Your task to perform on an android device: turn off translation in the chrome app Image 0: 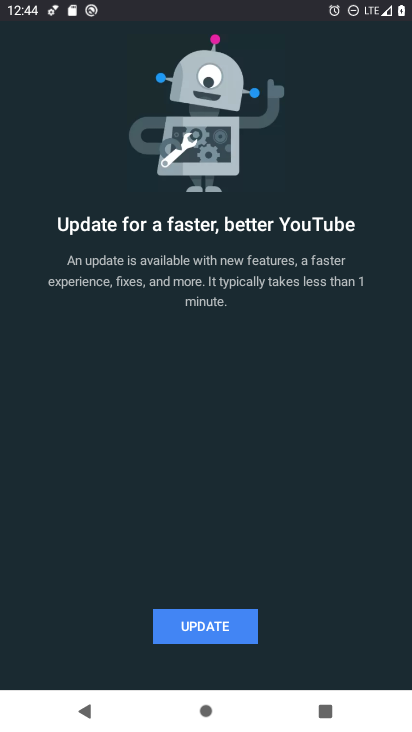
Step 0: press home button
Your task to perform on an android device: turn off translation in the chrome app Image 1: 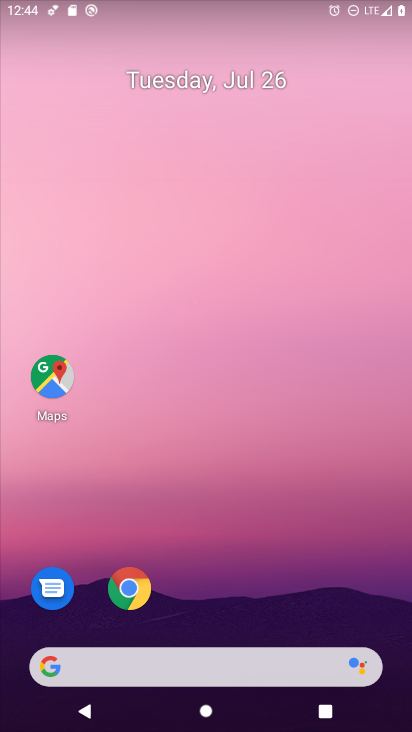
Step 1: drag from (226, 623) to (170, 158)
Your task to perform on an android device: turn off translation in the chrome app Image 2: 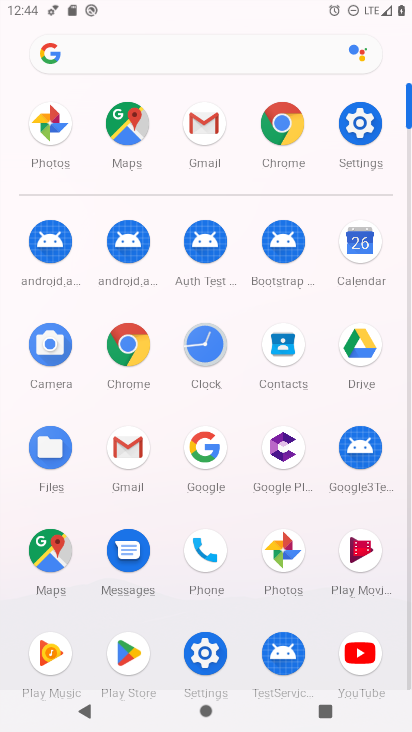
Step 2: click (290, 128)
Your task to perform on an android device: turn off translation in the chrome app Image 3: 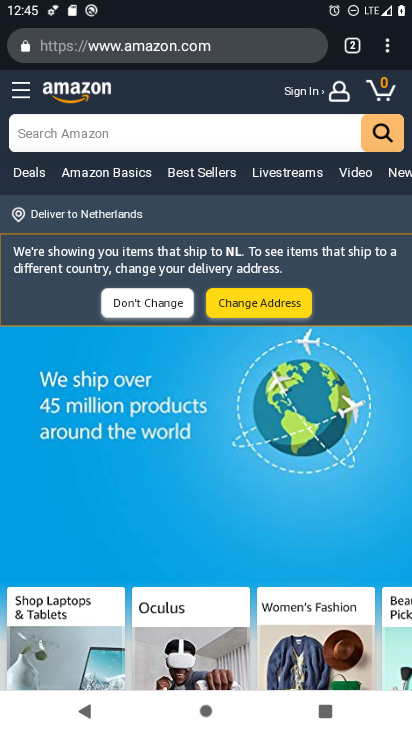
Step 3: click (391, 48)
Your task to perform on an android device: turn off translation in the chrome app Image 4: 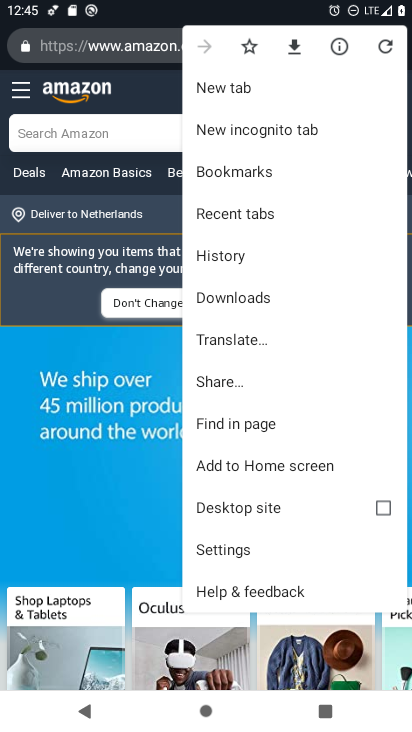
Step 4: click (267, 551)
Your task to perform on an android device: turn off translation in the chrome app Image 5: 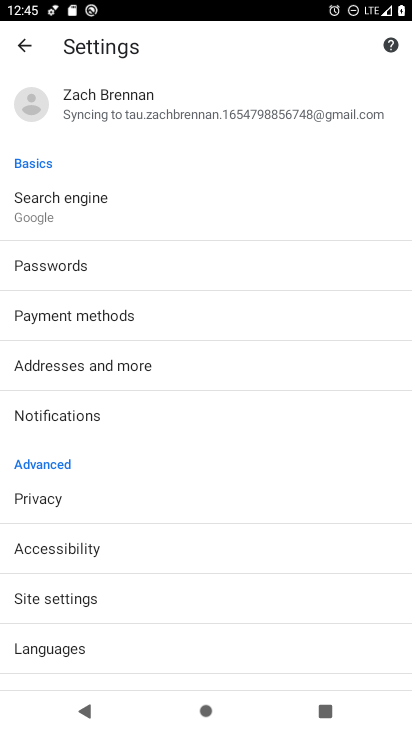
Step 5: click (211, 641)
Your task to perform on an android device: turn off translation in the chrome app Image 6: 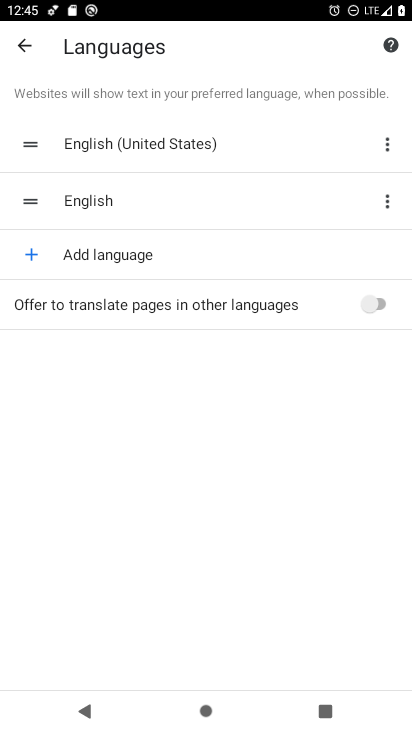
Step 6: task complete